Your task to perform on an android device: When is my next appointment? Image 0: 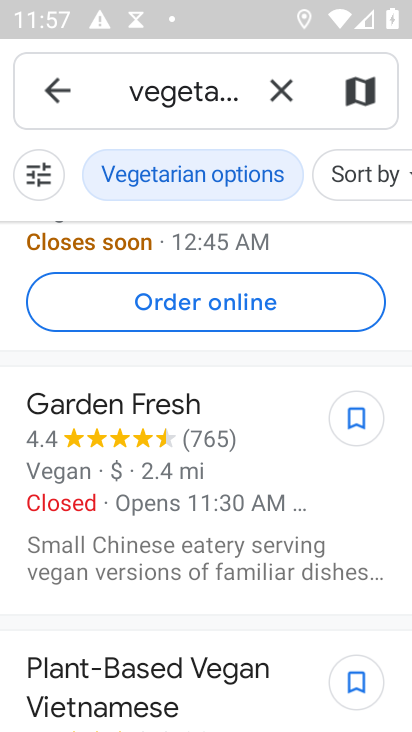
Step 0: press home button
Your task to perform on an android device: When is my next appointment? Image 1: 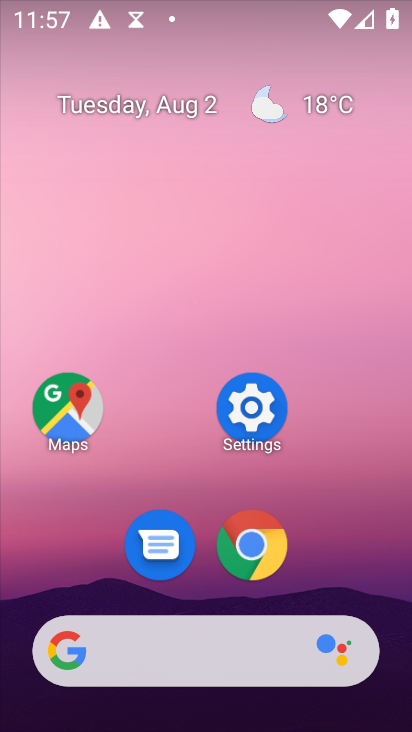
Step 1: drag from (157, 616) to (259, 139)
Your task to perform on an android device: When is my next appointment? Image 2: 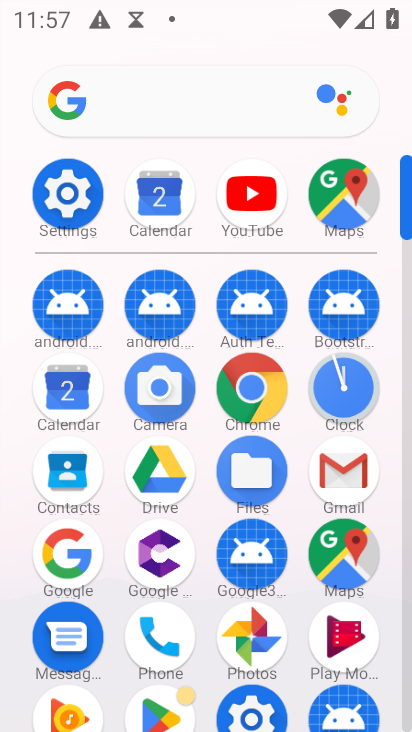
Step 2: click (75, 391)
Your task to perform on an android device: When is my next appointment? Image 3: 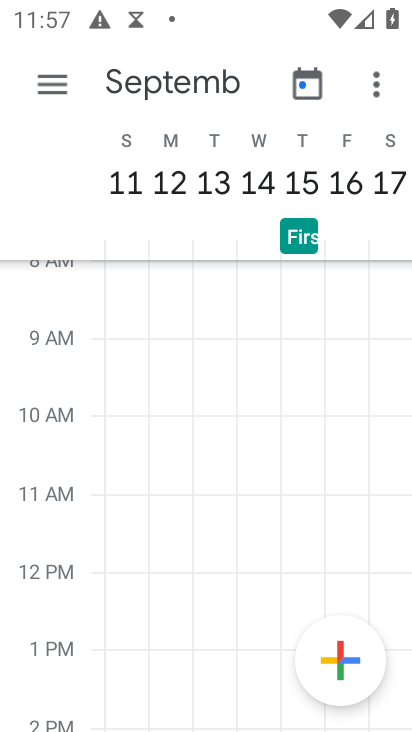
Step 3: click (147, 80)
Your task to perform on an android device: When is my next appointment? Image 4: 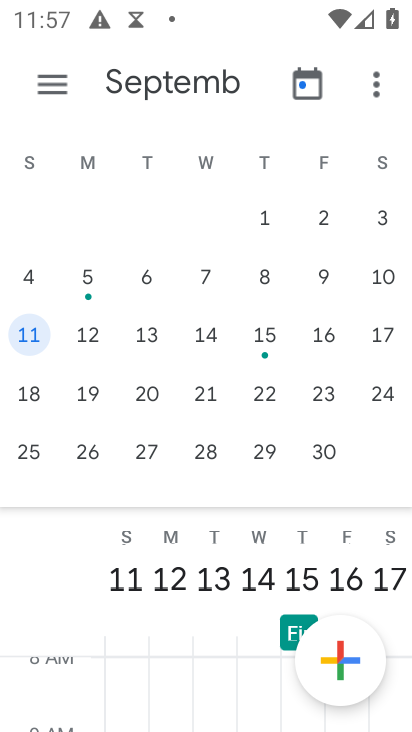
Step 4: click (358, 429)
Your task to perform on an android device: When is my next appointment? Image 5: 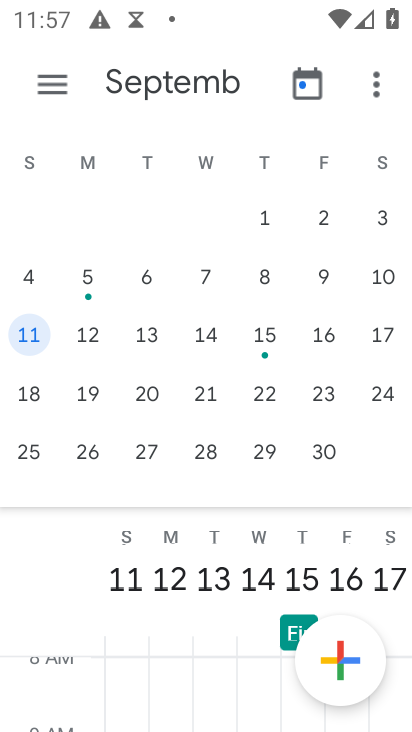
Step 5: drag from (85, 271) to (389, 360)
Your task to perform on an android device: When is my next appointment? Image 6: 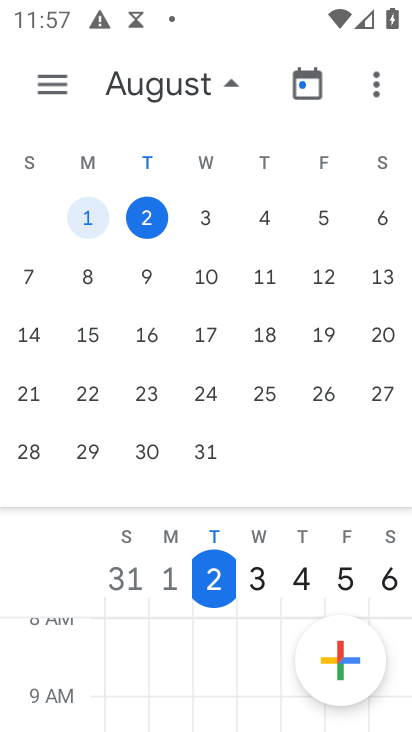
Step 6: click (140, 224)
Your task to perform on an android device: When is my next appointment? Image 7: 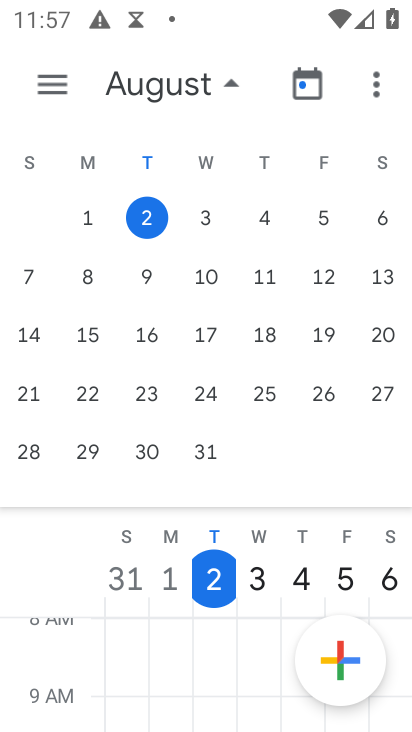
Step 7: click (61, 81)
Your task to perform on an android device: When is my next appointment? Image 8: 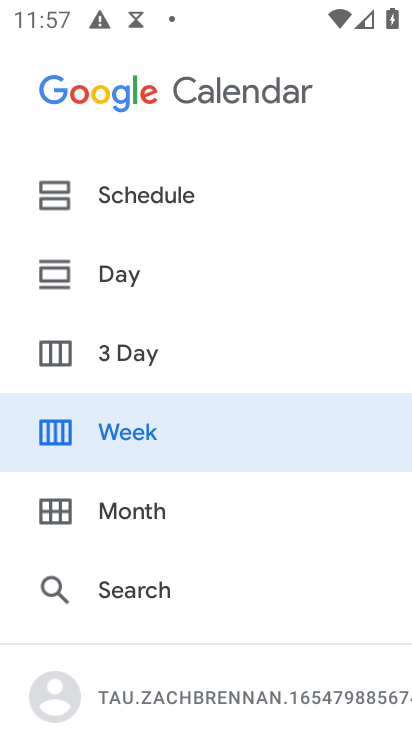
Step 8: click (151, 197)
Your task to perform on an android device: When is my next appointment? Image 9: 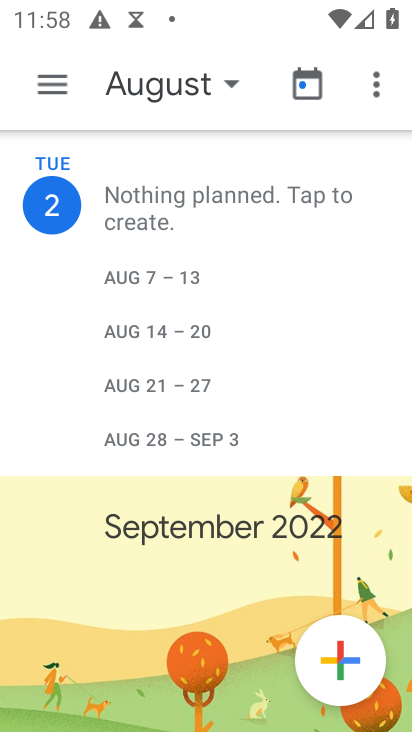
Step 9: task complete